Your task to perform on an android device: change the clock display to digital Image 0: 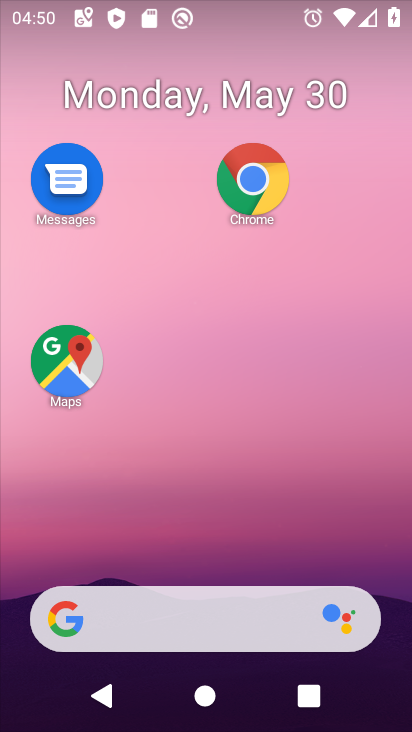
Step 0: drag from (205, 535) to (256, 6)
Your task to perform on an android device: change the clock display to digital Image 1: 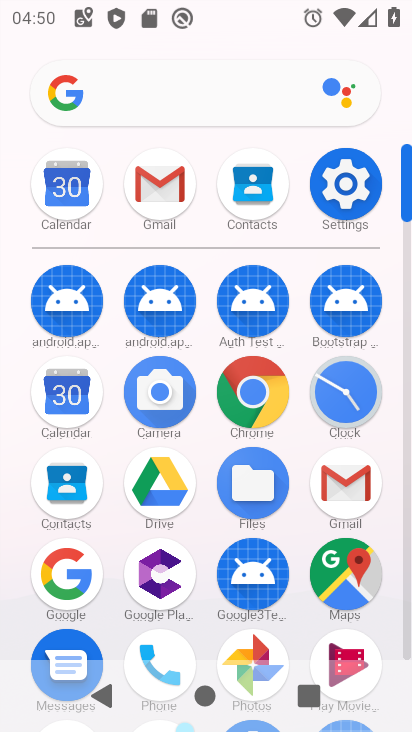
Step 1: click (343, 190)
Your task to perform on an android device: change the clock display to digital Image 2: 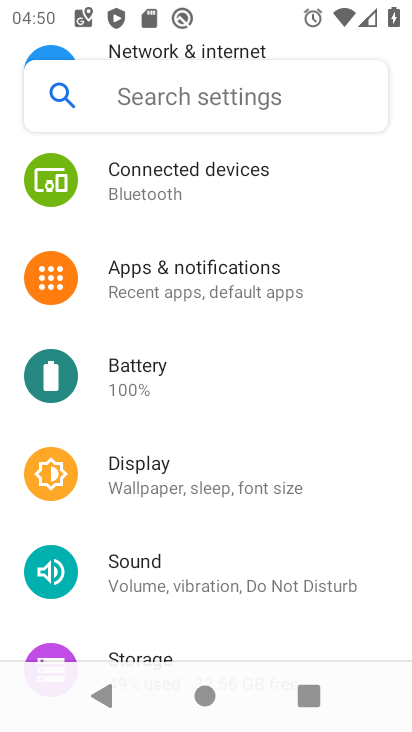
Step 2: press back button
Your task to perform on an android device: change the clock display to digital Image 3: 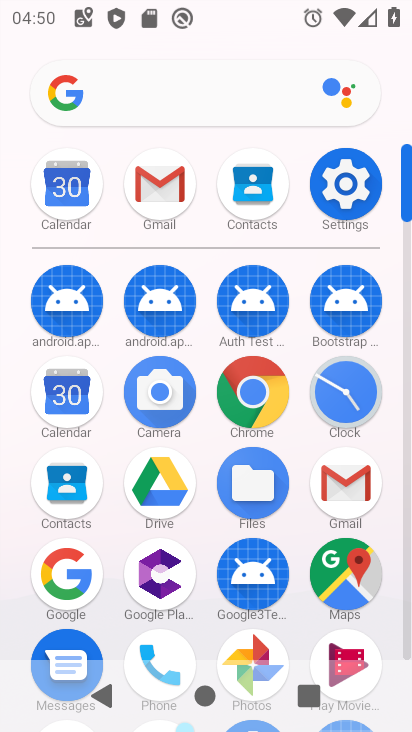
Step 3: click (332, 403)
Your task to perform on an android device: change the clock display to digital Image 4: 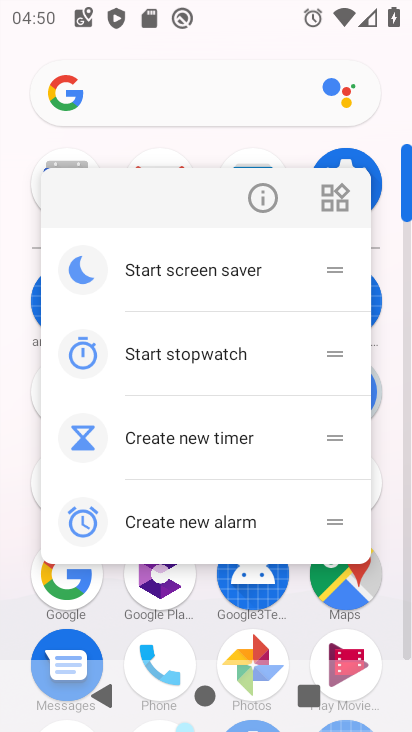
Step 4: click (333, 403)
Your task to perform on an android device: change the clock display to digital Image 5: 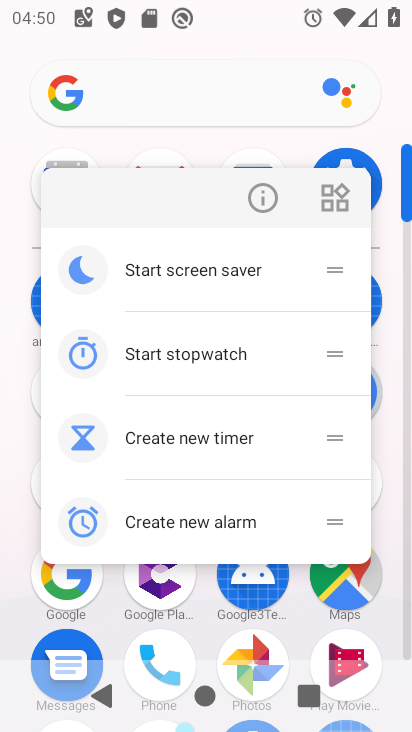
Step 5: press back button
Your task to perform on an android device: change the clock display to digital Image 6: 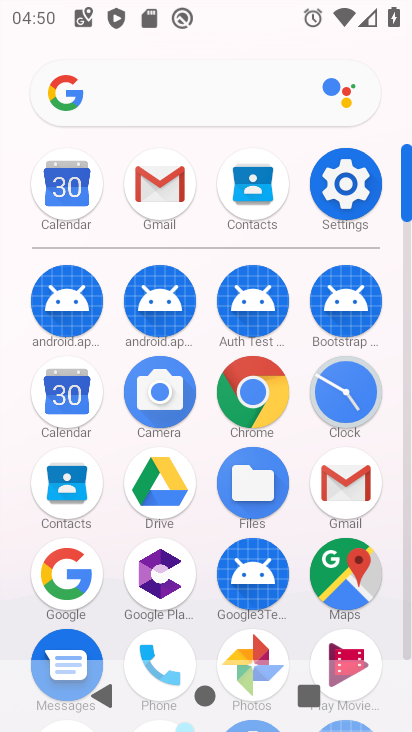
Step 6: click (355, 396)
Your task to perform on an android device: change the clock display to digital Image 7: 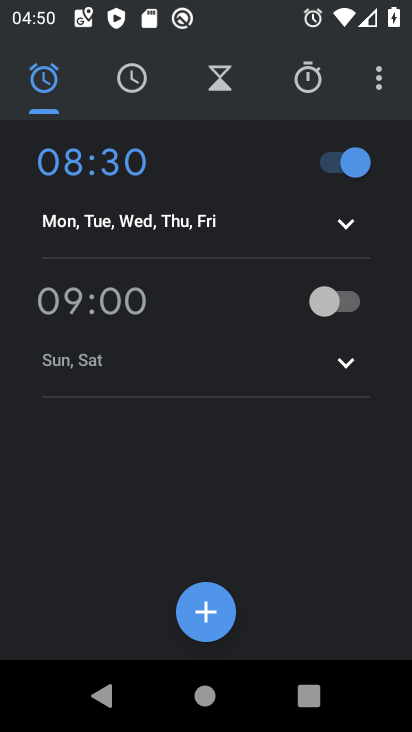
Step 7: click (379, 86)
Your task to perform on an android device: change the clock display to digital Image 8: 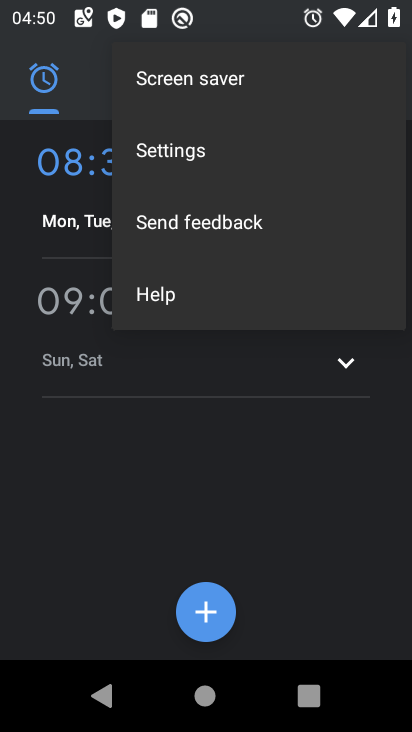
Step 8: click (195, 149)
Your task to perform on an android device: change the clock display to digital Image 9: 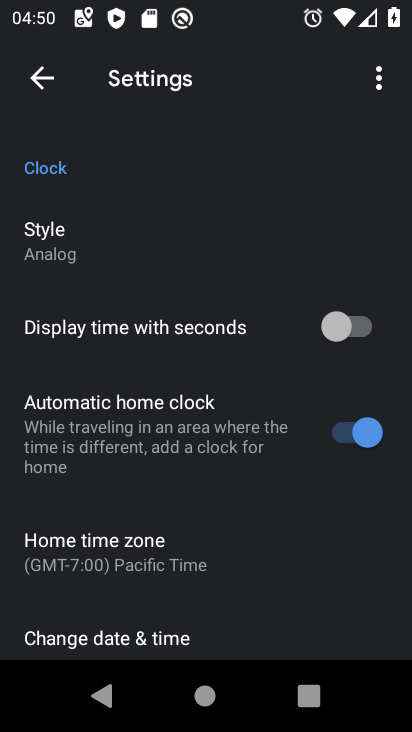
Step 9: click (77, 247)
Your task to perform on an android device: change the clock display to digital Image 10: 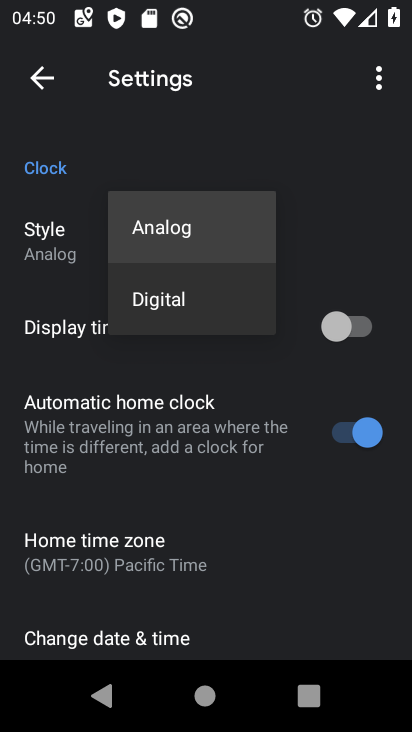
Step 10: click (160, 308)
Your task to perform on an android device: change the clock display to digital Image 11: 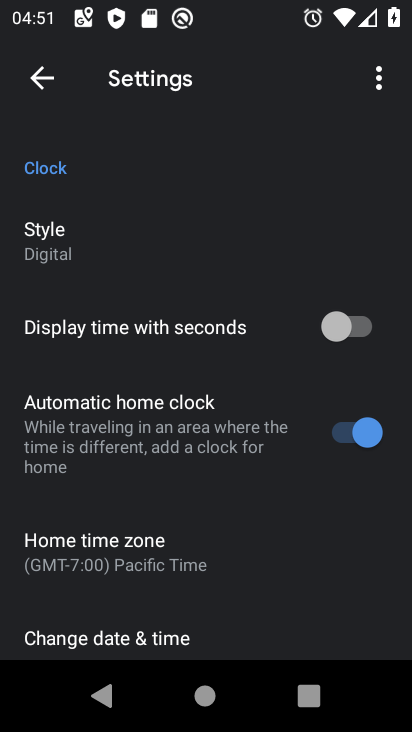
Step 11: task complete